Your task to perform on an android device: turn on javascript in the chrome app Image 0: 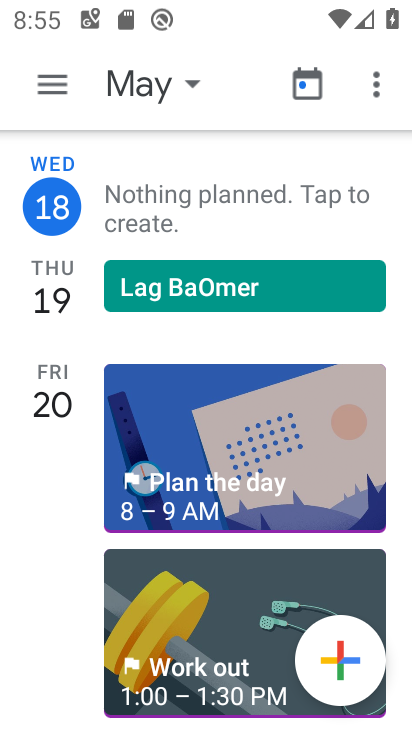
Step 0: press home button
Your task to perform on an android device: turn on javascript in the chrome app Image 1: 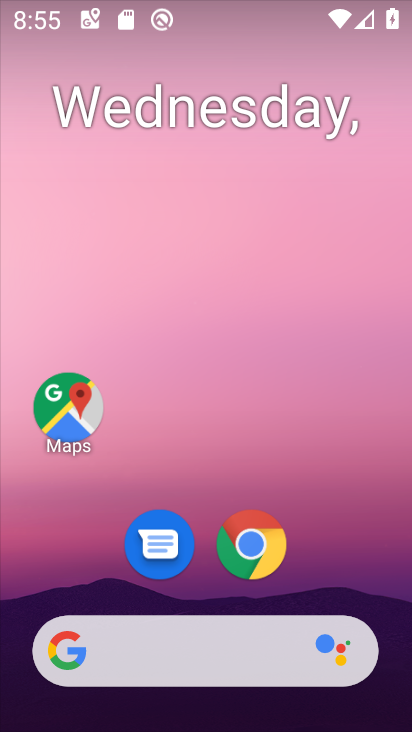
Step 1: click (249, 542)
Your task to perform on an android device: turn on javascript in the chrome app Image 2: 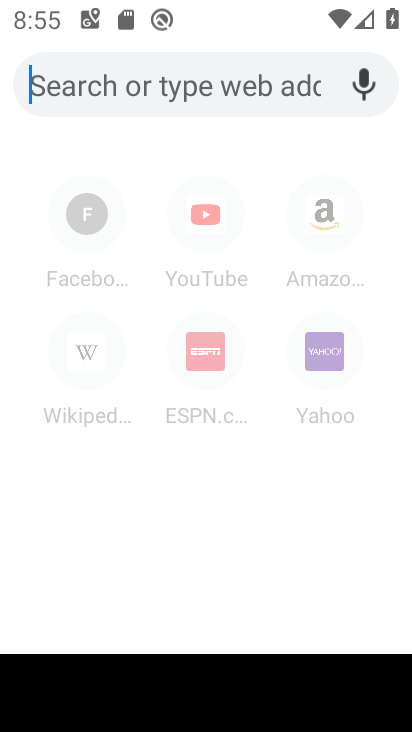
Step 2: press back button
Your task to perform on an android device: turn on javascript in the chrome app Image 3: 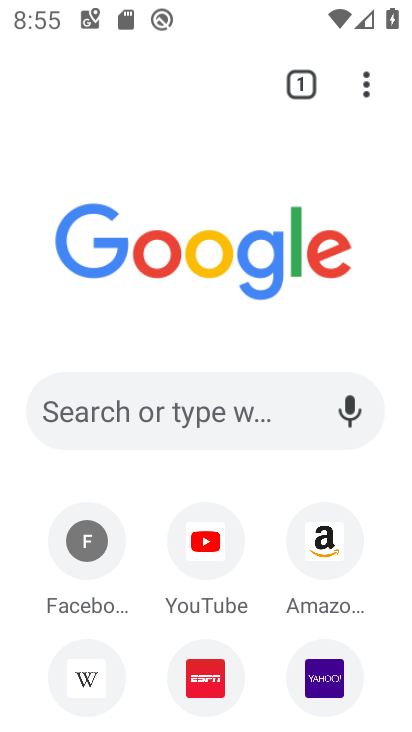
Step 3: drag from (364, 76) to (180, 588)
Your task to perform on an android device: turn on javascript in the chrome app Image 4: 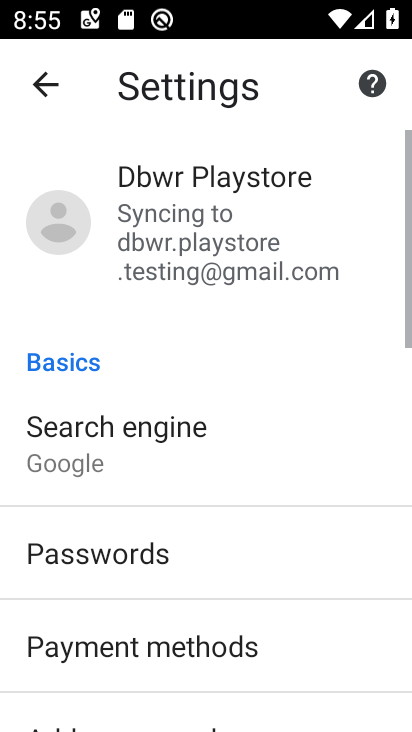
Step 4: drag from (181, 585) to (318, 129)
Your task to perform on an android device: turn on javascript in the chrome app Image 5: 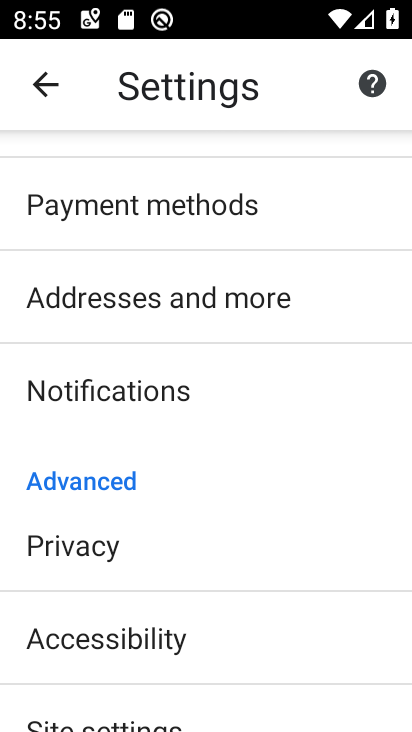
Step 5: drag from (262, 635) to (320, 262)
Your task to perform on an android device: turn on javascript in the chrome app Image 6: 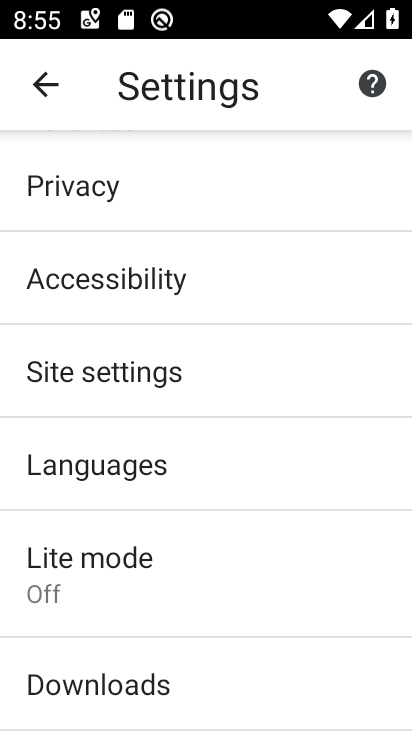
Step 6: click (167, 385)
Your task to perform on an android device: turn on javascript in the chrome app Image 7: 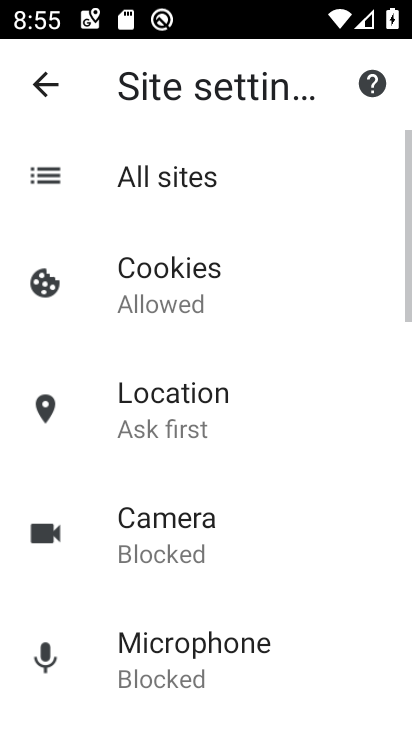
Step 7: drag from (311, 554) to (360, 184)
Your task to perform on an android device: turn on javascript in the chrome app Image 8: 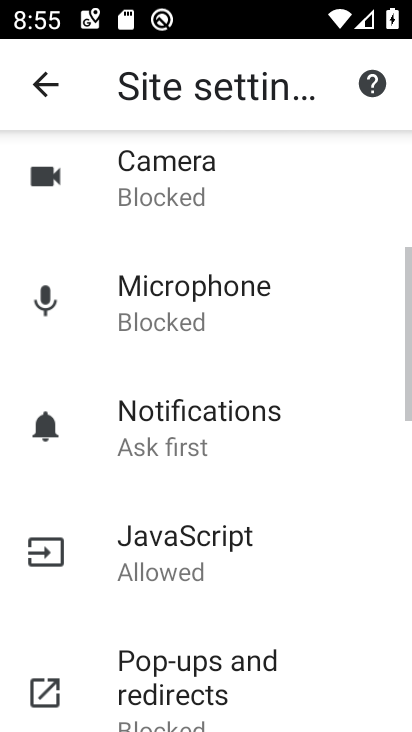
Step 8: click (206, 549)
Your task to perform on an android device: turn on javascript in the chrome app Image 9: 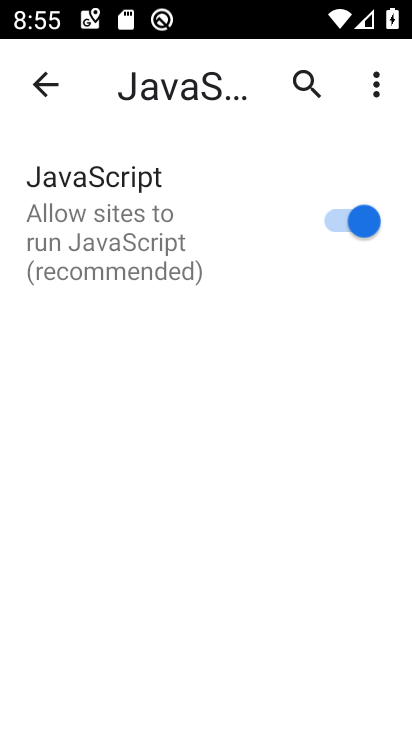
Step 9: task complete